Your task to perform on an android device: Show me recent news Image 0: 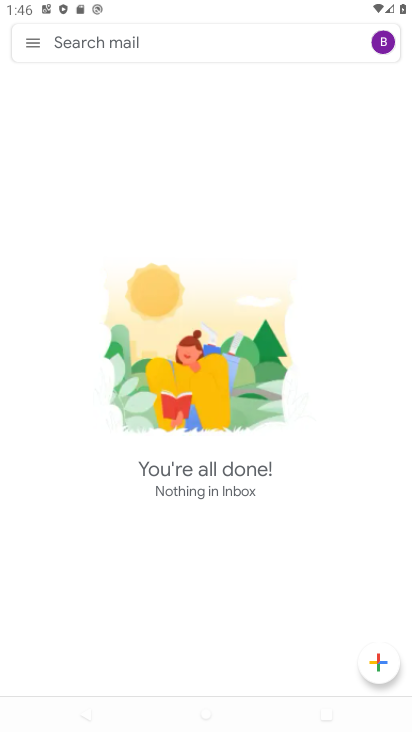
Step 0: press home button
Your task to perform on an android device: Show me recent news Image 1: 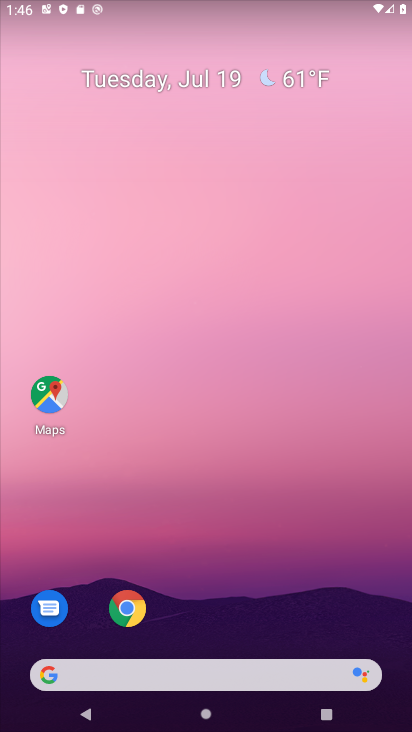
Step 1: drag from (239, 627) to (382, 41)
Your task to perform on an android device: Show me recent news Image 2: 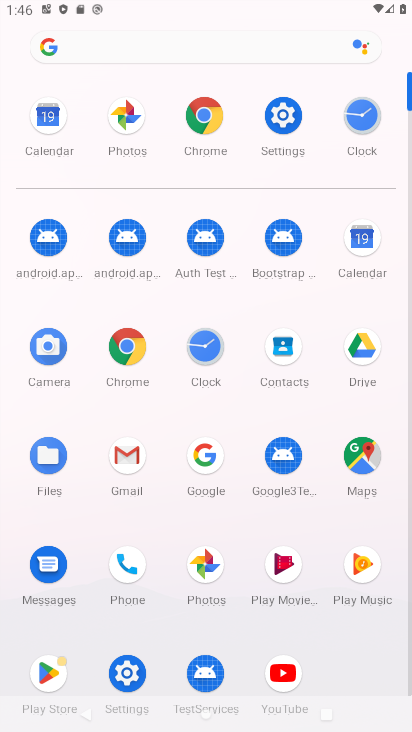
Step 2: click (196, 130)
Your task to perform on an android device: Show me recent news Image 3: 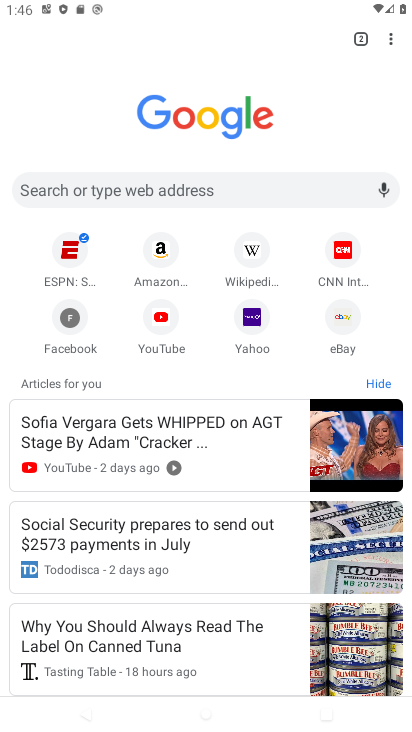
Step 3: task complete